Your task to perform on an android device: Search for Mexican restaurants on Maps Image 0: 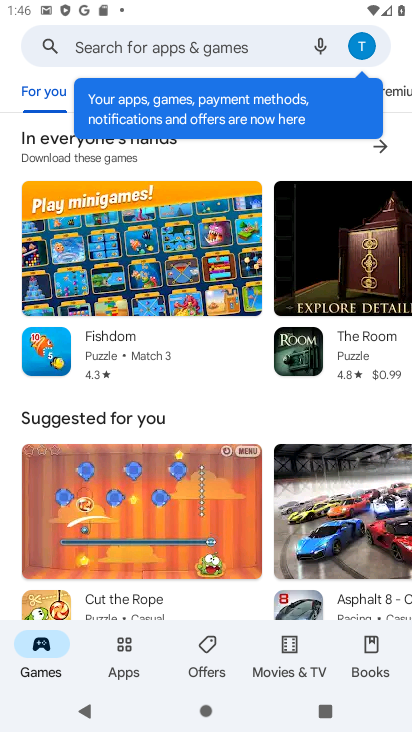
Step 0: press back button
Your task to perform on an android device: Search for Mexican restaurants on Maps Image 1: 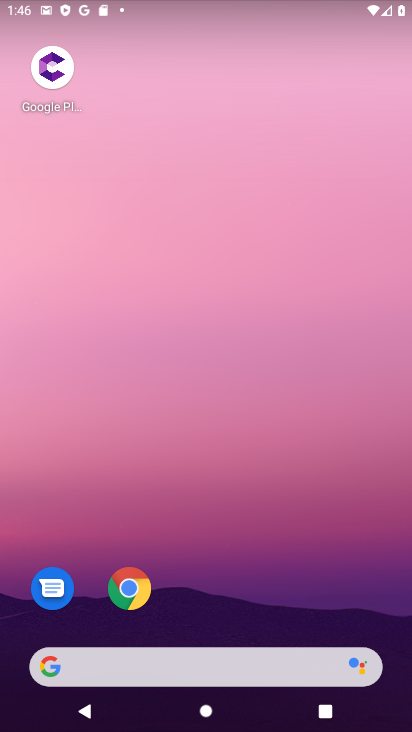
Step 1: drag from (215, 592) to (270, 55)
Your task to perform on an android device: Search for Mexican restaurants on Maps Image 2: 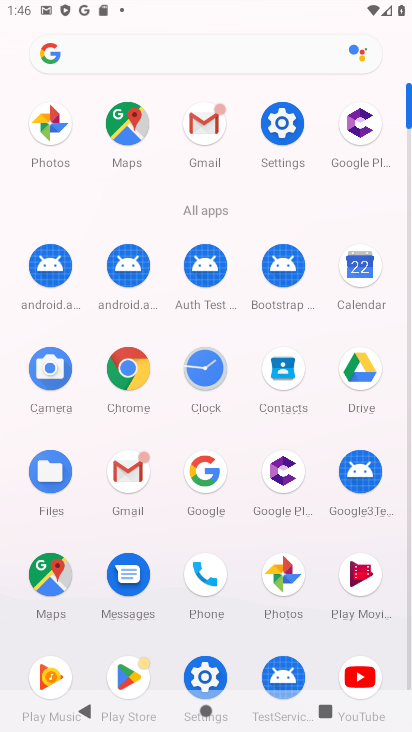
Step 2: click (126, 128)
Your task to perform on an android device: Search for Mexican restaurants on Maps Image 3: 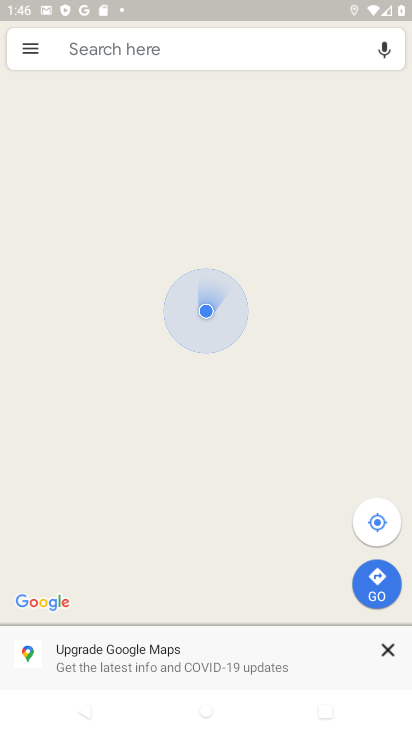
Step 3: click (174, 50)
Your task to perform on an android device: Search for Mexican restaurants on Maps Image 4: 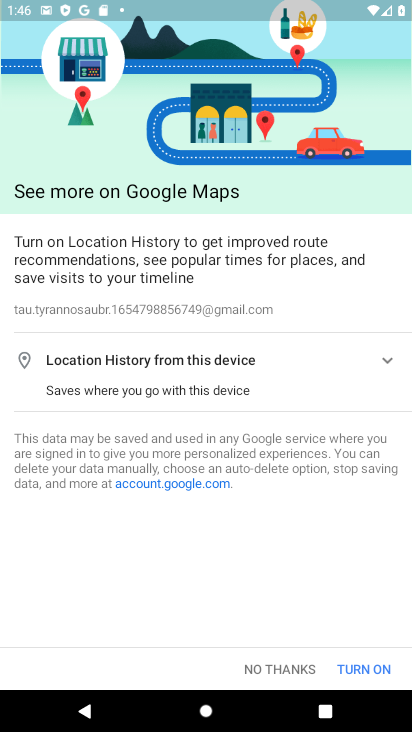
Step 4: click (282, 669)
Your task to perform on an android device: Search for Mexican restaurants on Maps Image 5: 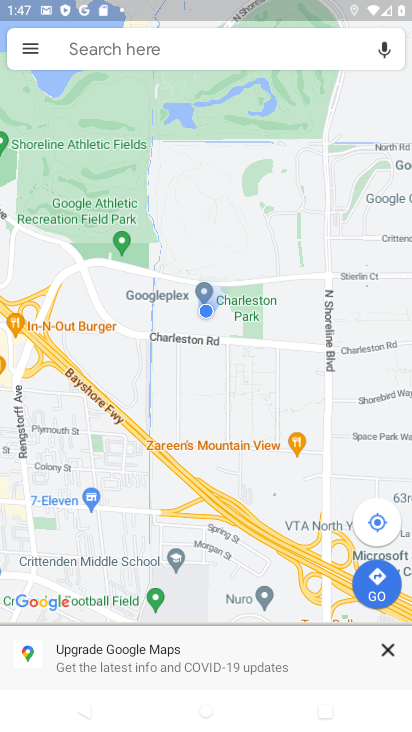
Step 5: click (151, 50)
Your task to perform on an android device: Search for Mexican restaurants on Maps Image 6: 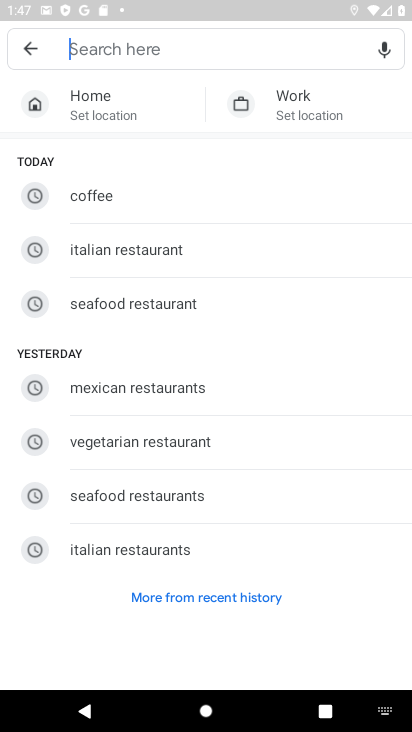
Step 6: click (102, 390)
Your task to perform on an android device: Search for Mexican restaurants on Maps Image 7: 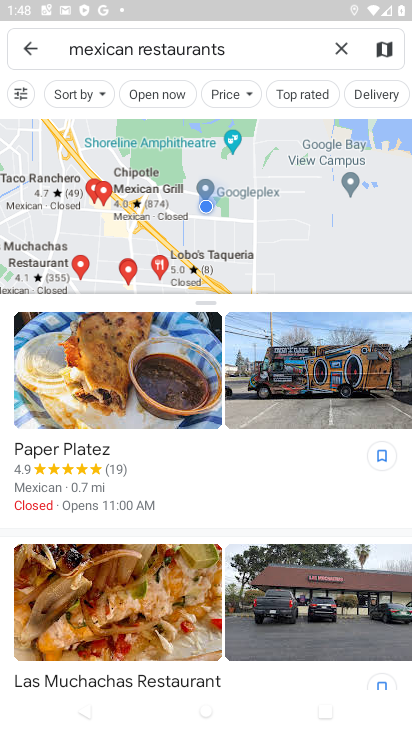
Step 7: task complete